Your task to perform on an android device: visit the assistant section in the google photos Image 0: 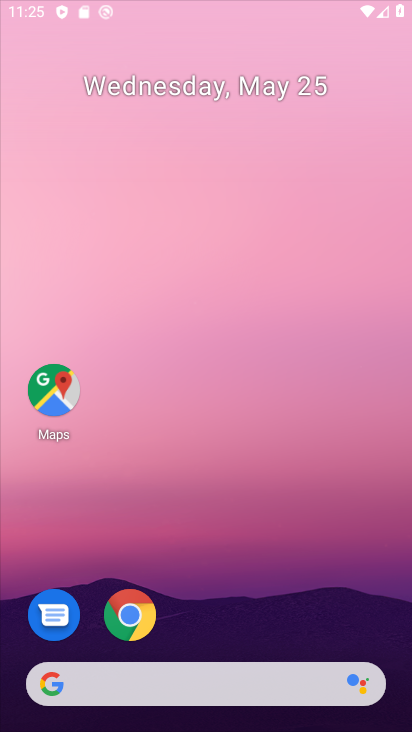
Step 0: drag from (351, 615) to (291, 17)
Your task to perform on an android device: visit the assistant section in the google photos Image 1: 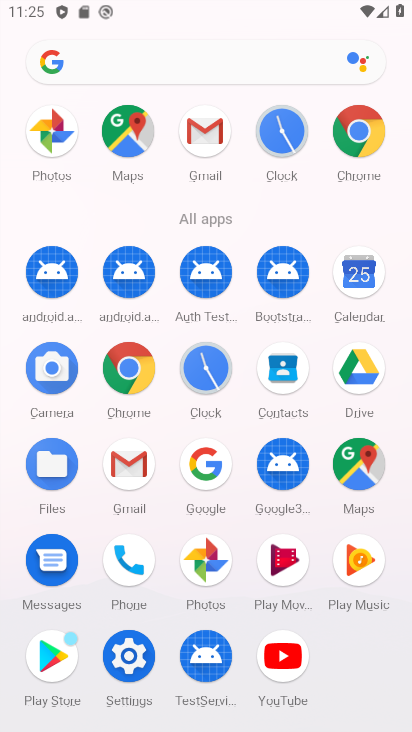
Step 1: click (196, 577)
Your task to perform on an android device: visit the assistant section in the google photos Image 2: 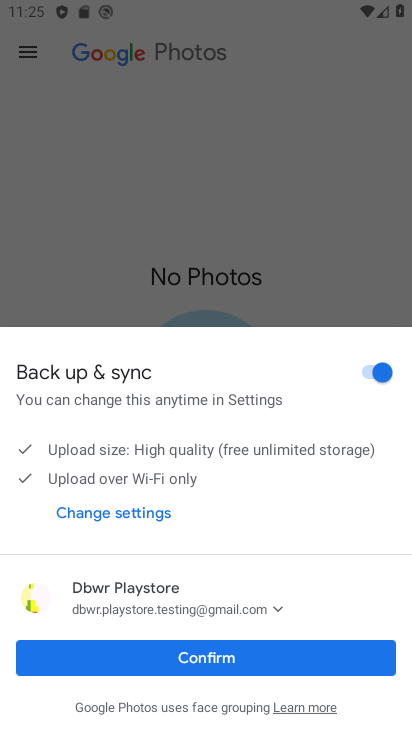
Step 2: click (197, 647)
Your task to perform on an android device: visit the assistant section in the google photos Image 3: 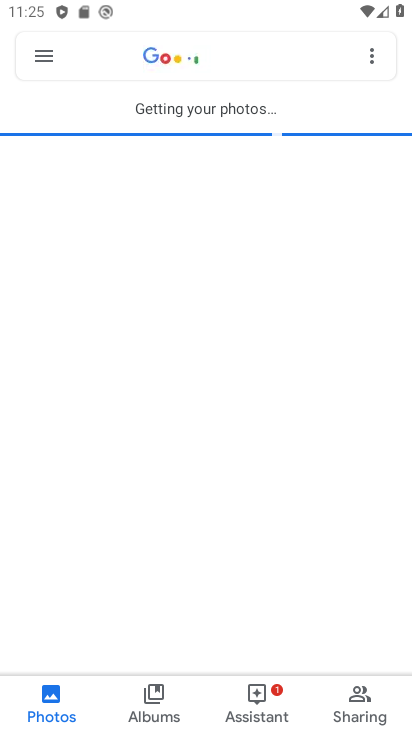
Step 3: click (244, 687)
Your task to perform on an android device: visit the assistant section in the google photos Image 4: 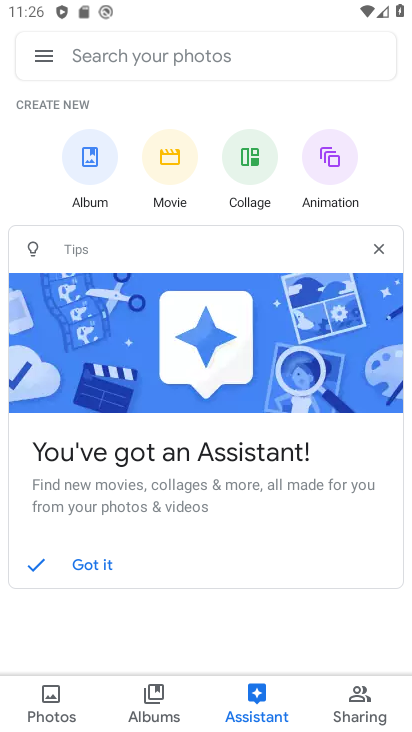
Step 4: task complete